Your task to perform on an android device: Go to settings Image 0: 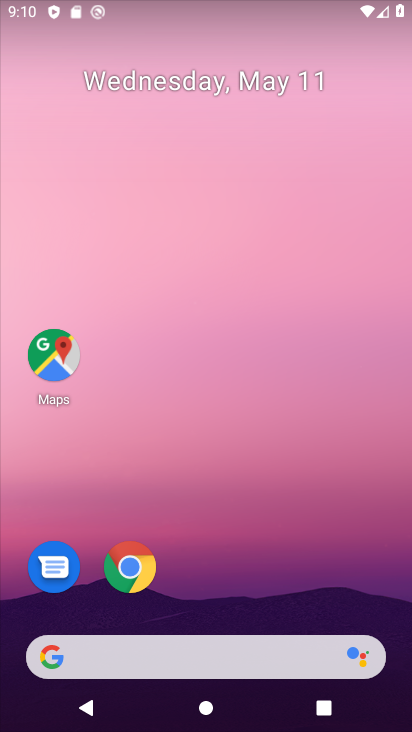
Step 0: drag from (266, 711) to (410, 0)
Your task to perform on an android device: Go to settings Image 1: 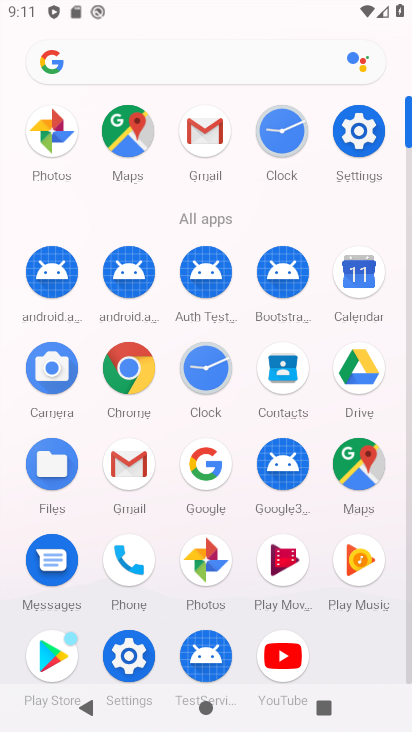
Step 1: click (361, 138)
Your task to perform on an android device: Go to settings Image 2: 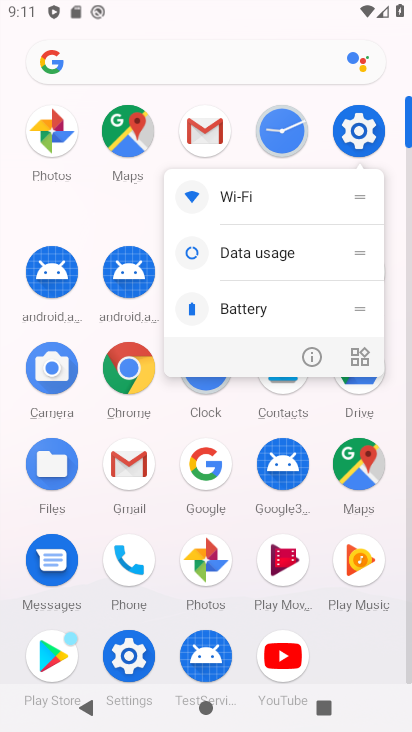
Step 2: click (360, 139)
Your task to perform on an android device: Go to settings Image 3: 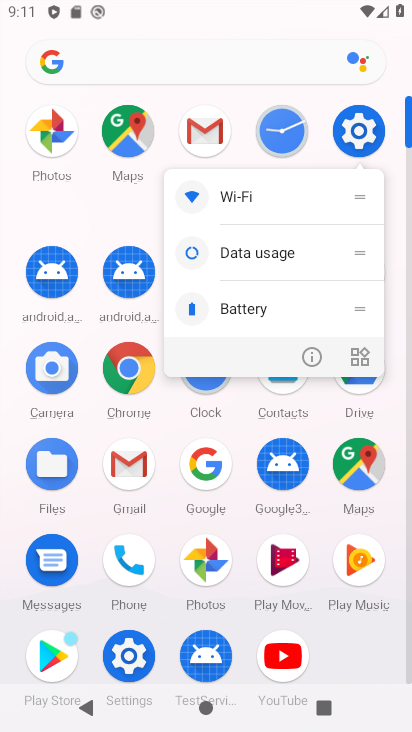
Step 3: click (355, 130)
Your task to perform on an android device: Go to settings Image 4: 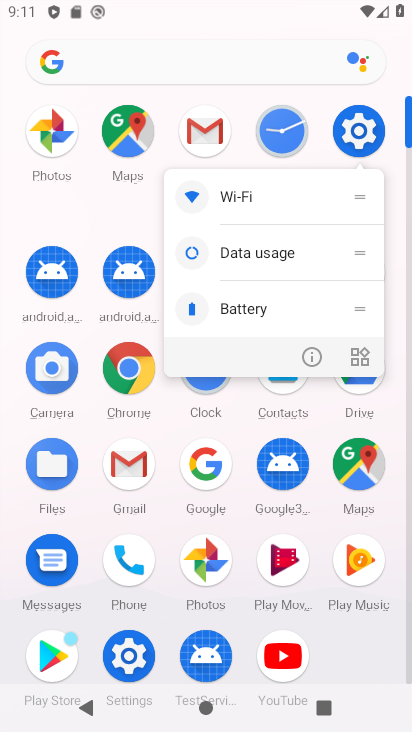
Step 4: click (355, 130)
Your task to perform on an android device: Go to settings Image 5: 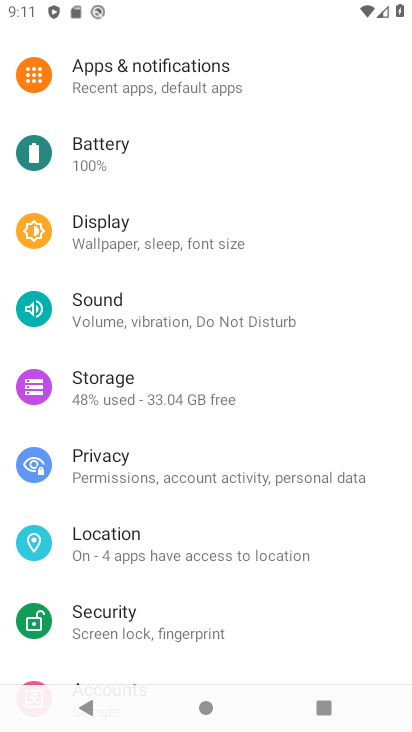
Step 5: task complete